Your task to perform on an android device: open chrome and create a bookmark for the current page Image 0: 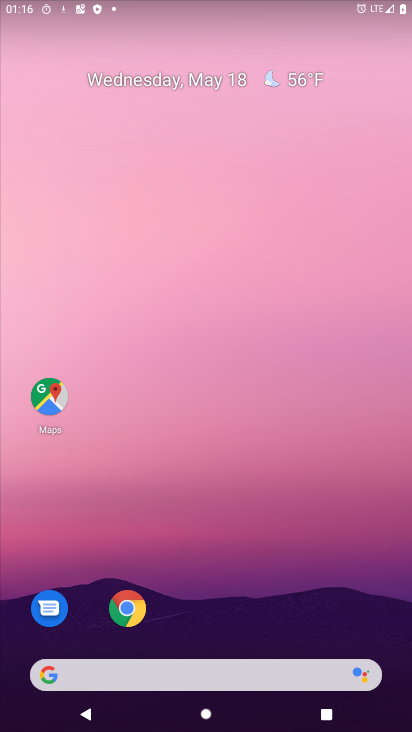
Step 0: drag from (299, 701) to (163, 98)
Your task to perform on an android device: open chrome and create a bookmark for the current page Image 1: 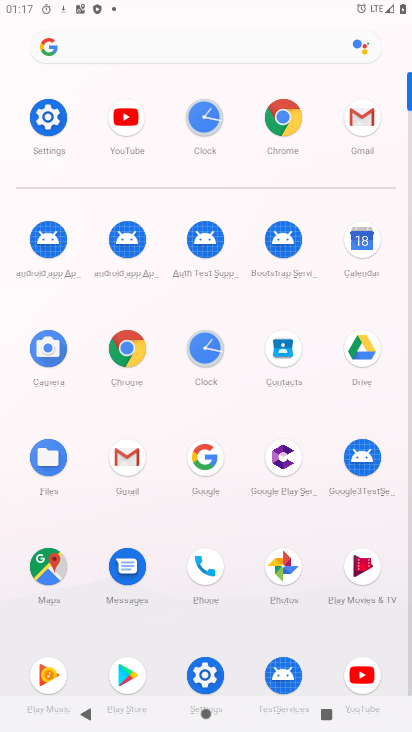
Step 1: click (271, 113)
Your task to perform on an android device: open chrome and create a bookmark for the current page Image 2: 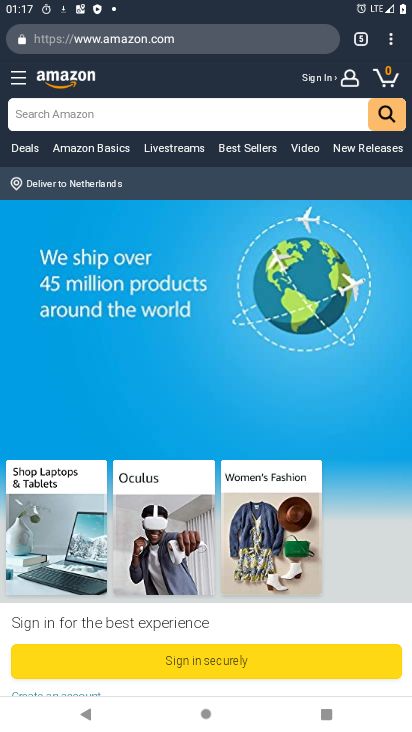
Step 2: click (394, 46)
Your task to perform on an android device: open chrome and create a bookmark for the current page Image 3: 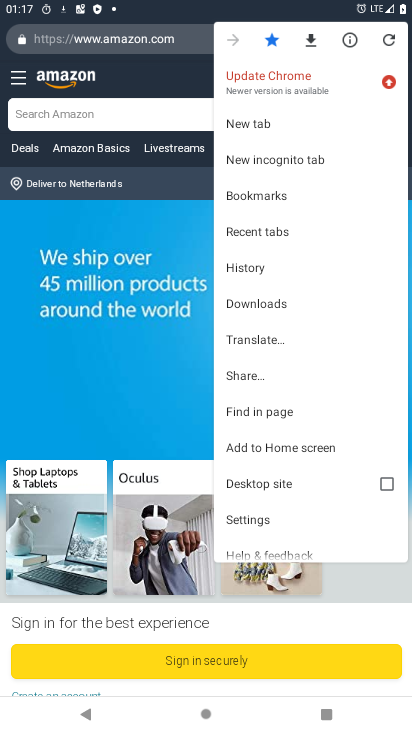
Step 3: click (257, 195)
Your task to perform on an android device: open chrome and create a bookmark for the current page Image 4: 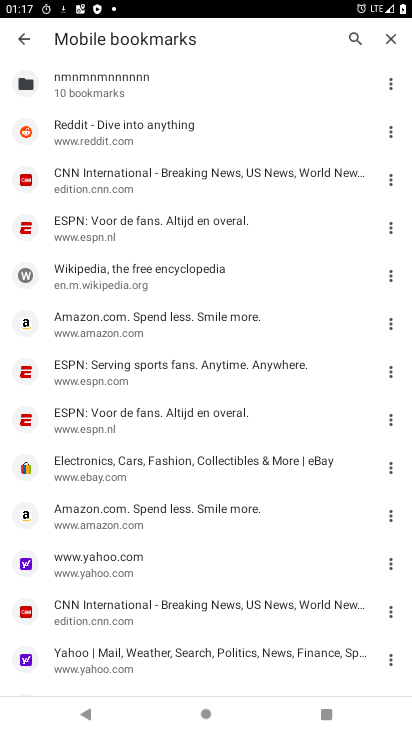
Step 4: task complete